Your task to perform on an android device: Play the last video I watched on Youtube Image 0: 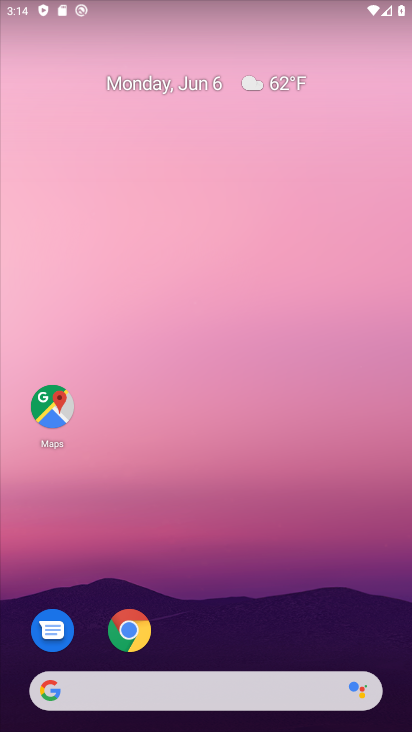
Step 0: press home button
Your task to perform on an android device: Play the last video I watched on Youtube Image 1: 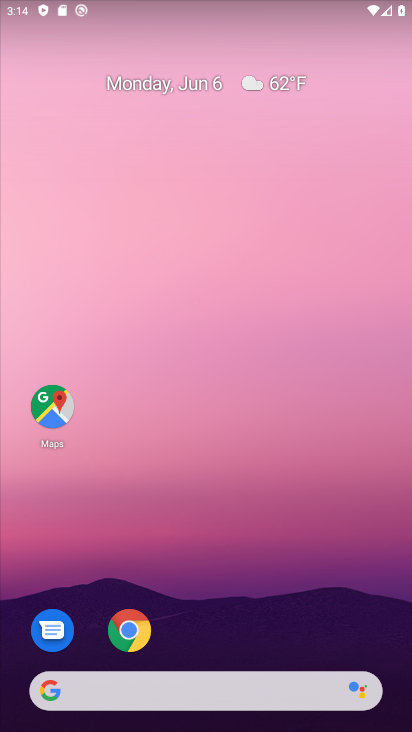
Step 1: drag from (273, 556) to (300, 52)
Your task to perform on an android device: Play the last video I watched on Youtube Image 2: 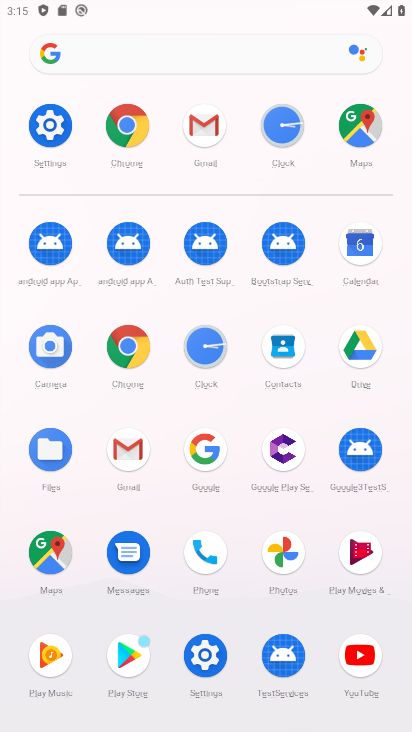
Step 2: click (356, 654)
Your task to perform on an android device: Play the last video I watched on Youtube Image 3: 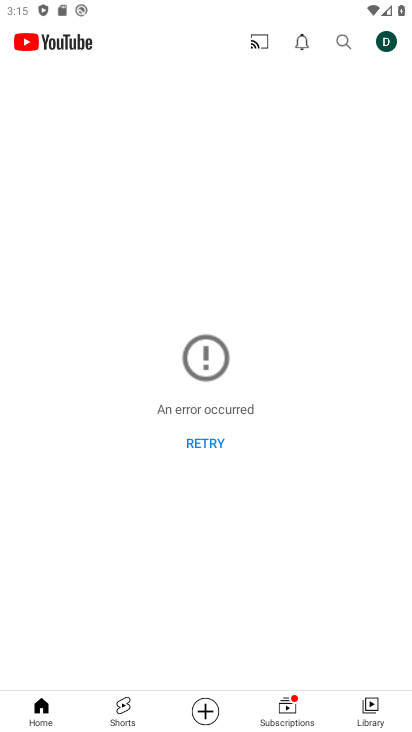
Step 3: click (358, 704)
Your task to perform on an android device: Play the last video I watched on Youtube Image 4: 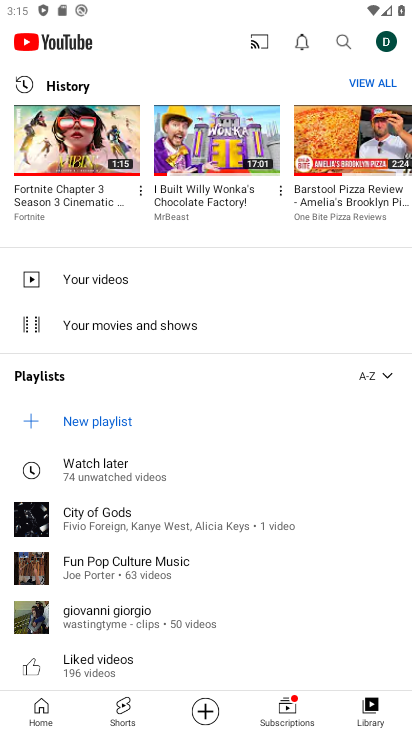
Step 4: click (53, 123)
Your task to perform on an android device: Play the last video I watched on Youtube Image 5: 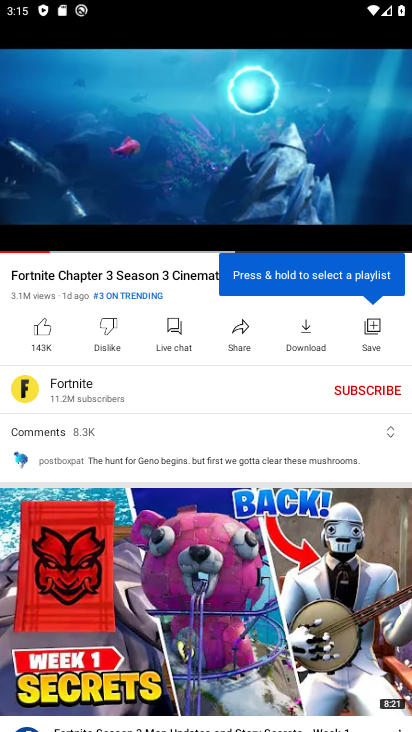
Step 5: task complete